Your task to perform on an android device: Open privacy settings Image 0: 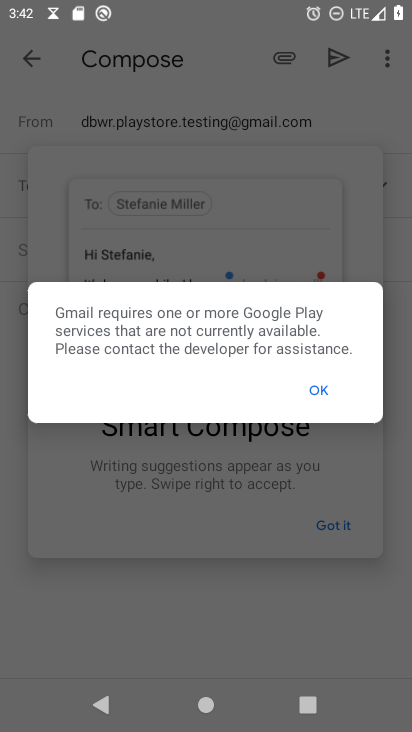
Step 0: press home button
Your task to perform on an android device: Open privacy settings Image 1: 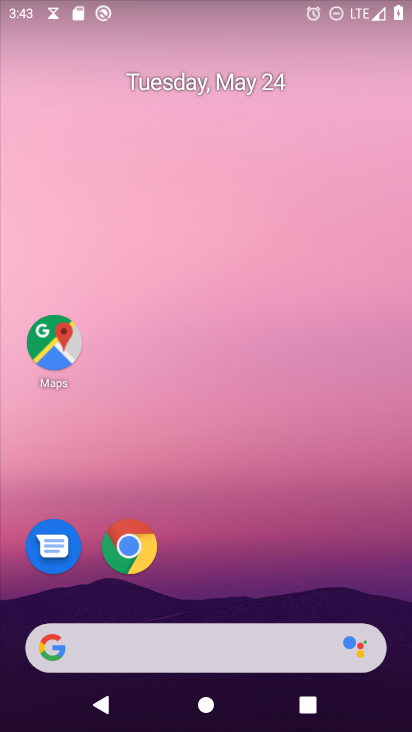
Step 1: drag from (236, 466) to (300, 1)
Your task to perform on an android device: Open privacy settings Image 2: 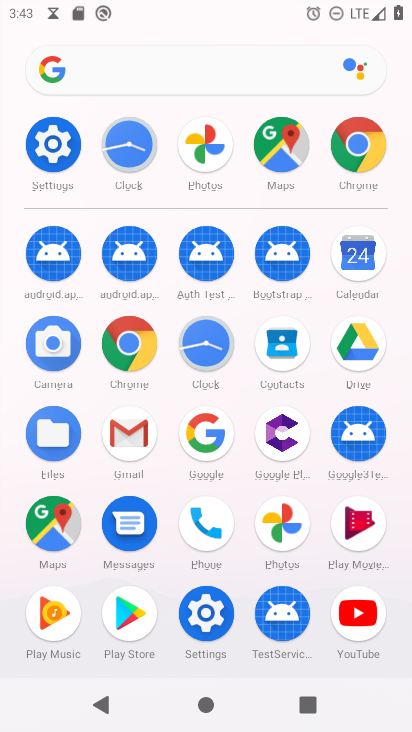
Step 2: click (70, 148)
Your task to perform on an android device: Open privacy settings Image 3: 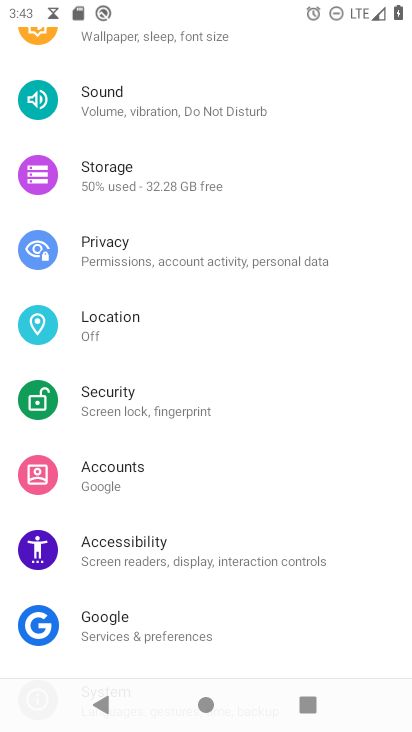
Step 3: click (150, 252)
Your task to perform on an android device: Open privacy settings Image 4: 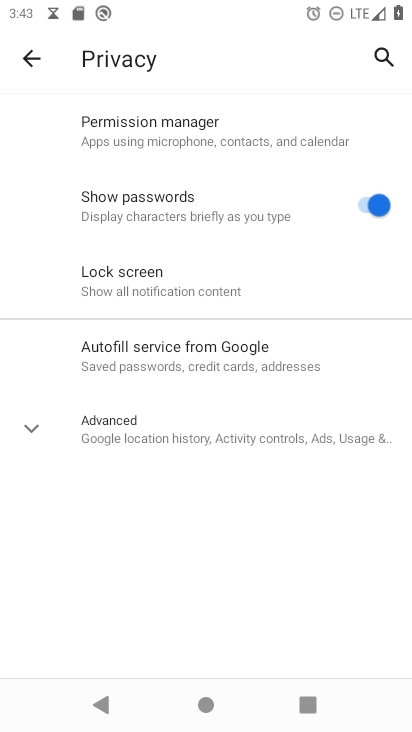
Step 4: task complete